Your task to perform on an android device: empty trash in google photos Image 0: 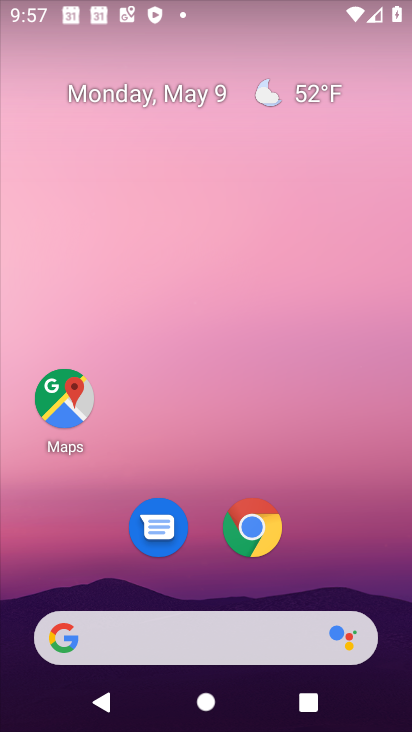
Step 0: drag from (206, 584) to (267, 114)
Your task to perform on an android device: empty trash in google photos Image 1: 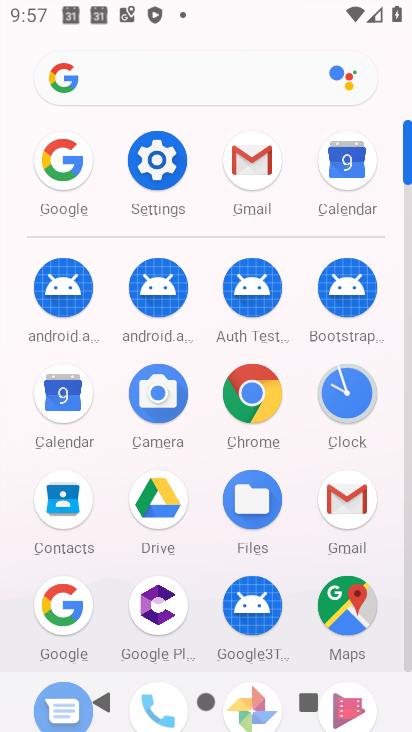
Step 1: drag from (243, 654) to (295, 236)
Your task to perform on an android device: empty trash in google photos Image 2: 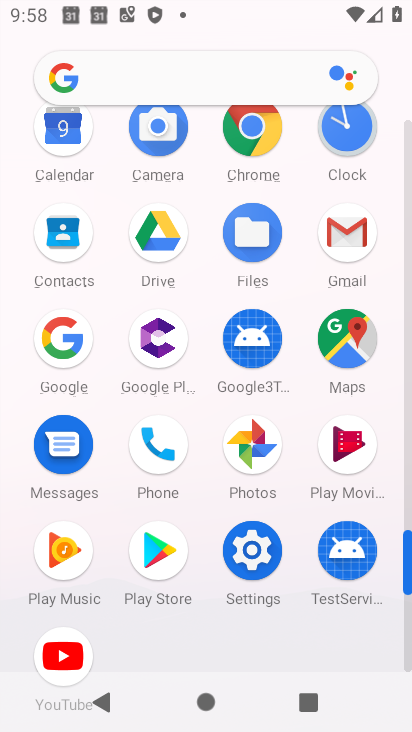
Step 2: click (257, 442)
Your task to perform on an android device: empty trash in google photos Image 3: 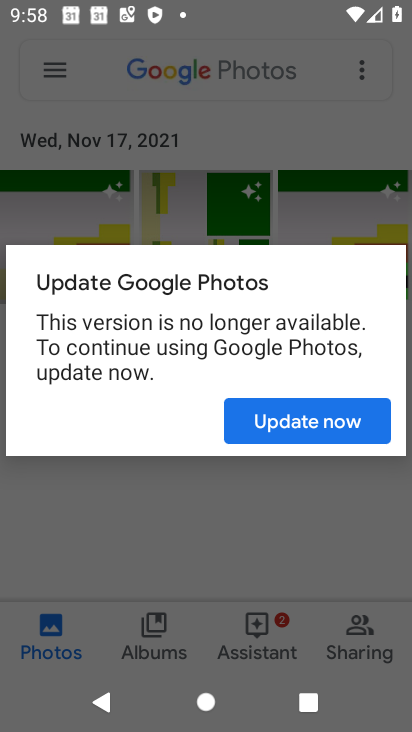
Step 3: click (280, 432)
Your task to perform on an android device: empty trash in google photos Image 4: 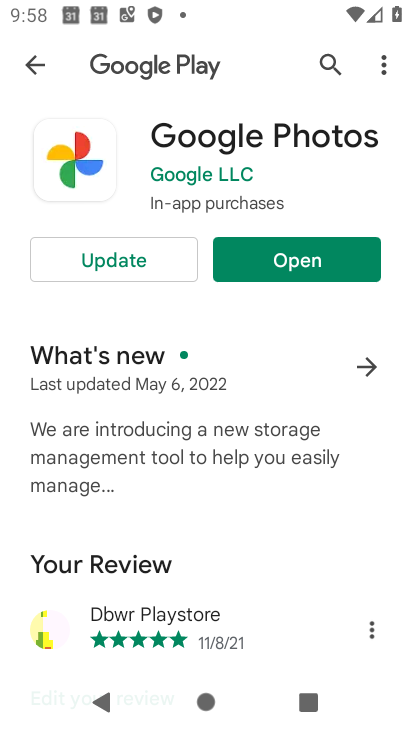
Step 4: click (270, 269)
Your task to perform on an android device: empty trash in google photos Image 5: 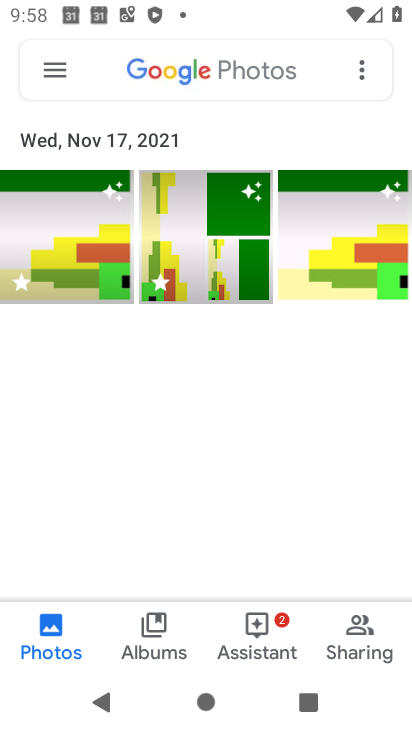
Step 5: click (58, 66)
Your task to perform on an android device: empty trash in google photos Image 6: 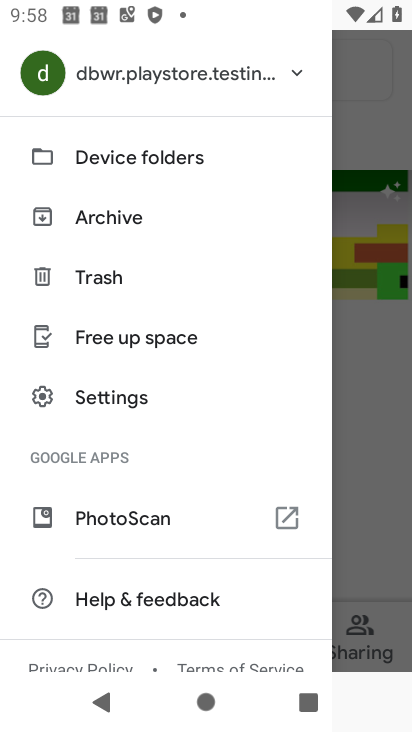
Step 6: click (98, 287)
Your task to perform on an android device: empty trash in google photos Image 7: 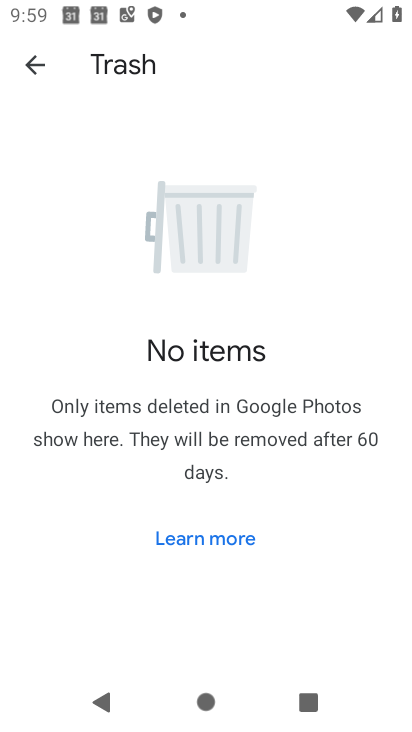
Step 7: task complete